Your task to perform on an android device: check battery use Image 0: 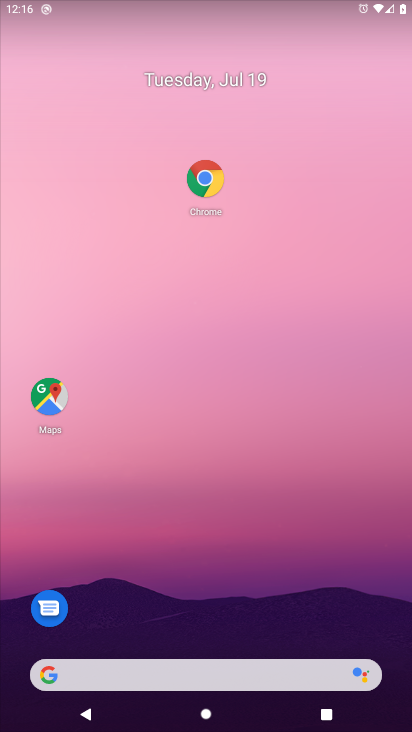
Step 0: drag from (20, 701) to (167, 169)
Your task to perform on an android device: check battery use Image 1: 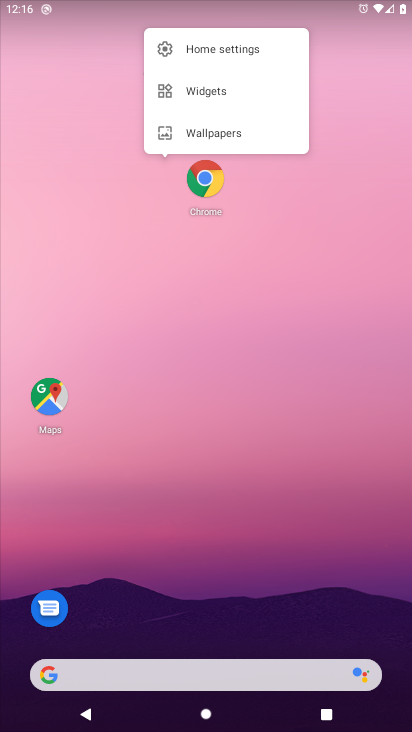
Step 1: drag from (67, 626) to (183, 152)
Your task to perform on an android device: check battery use Image 2: 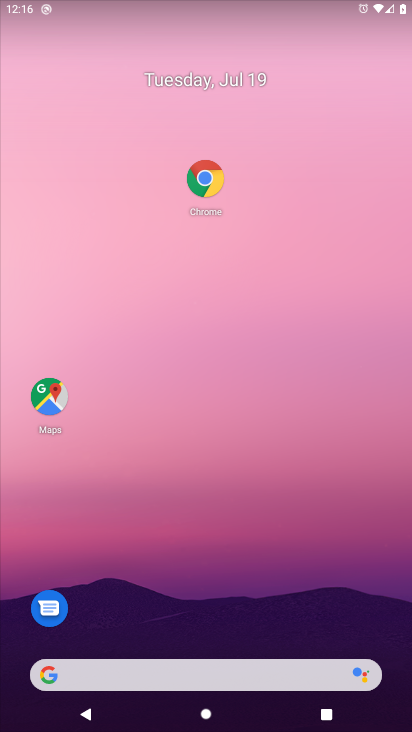
Step 2: drag from (46, 710) to (260, 5)
Your task to perform on an android device: check battery use Image 3: 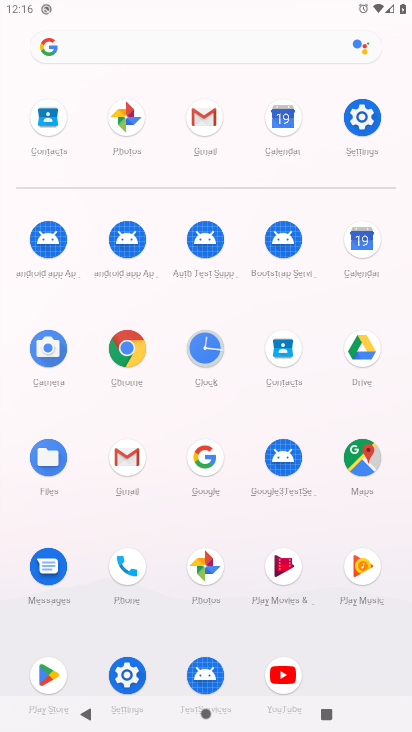
Step 3: click (112, 680)
Your task to perform on an android device: check battery use Image 4: 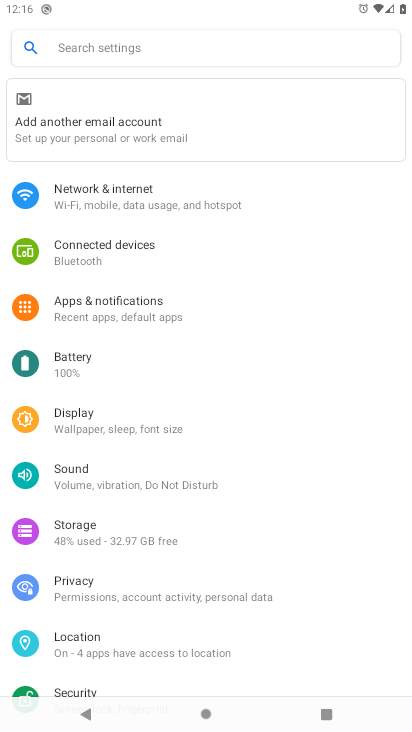
Step 4: click (91, 359)
Your task to perform on an android device: check battery use Image 5: 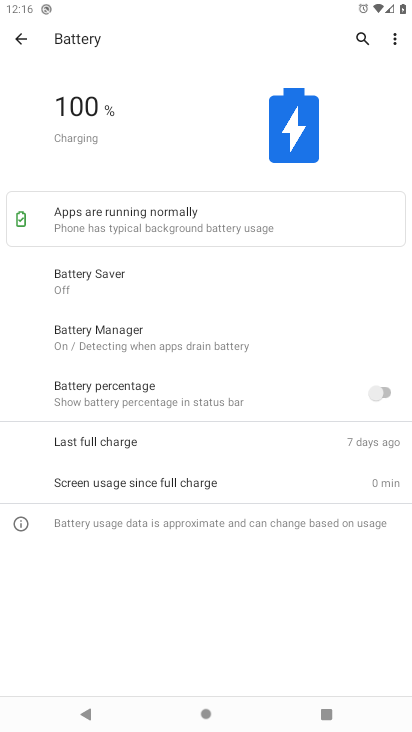
Step 5: task complete